Your task to perform on an android device: Open network settings Image 0: 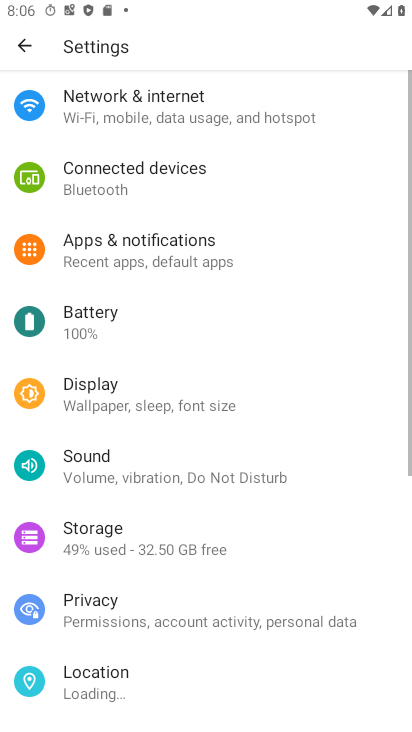
Step 0: drag from (268, 660) to (263, 279)
Your task to perform on an android device: Open network settings Image 1: 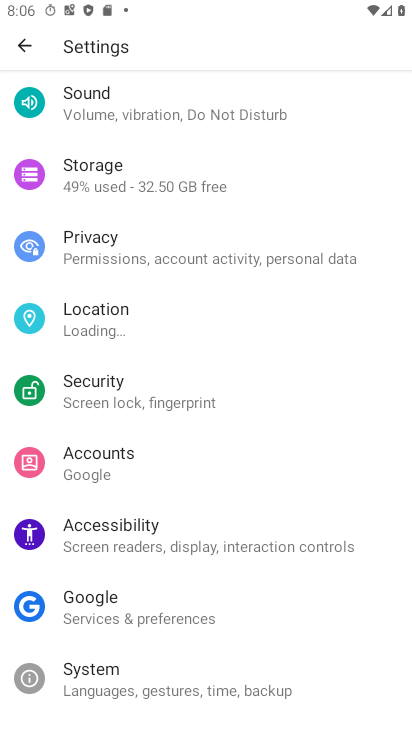
Step 1: press home button
Your task to perform on an android device: Open network settings Image 2: 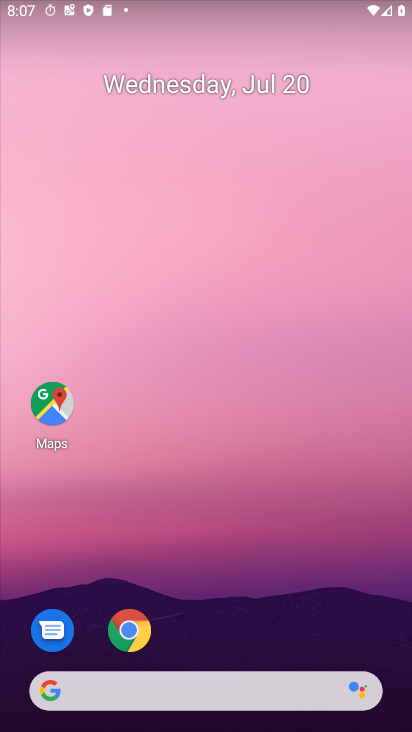
Step 2: drag from (201, 640) to (89, 99)
Your task to perform on an android device: Open network settings Image 3: 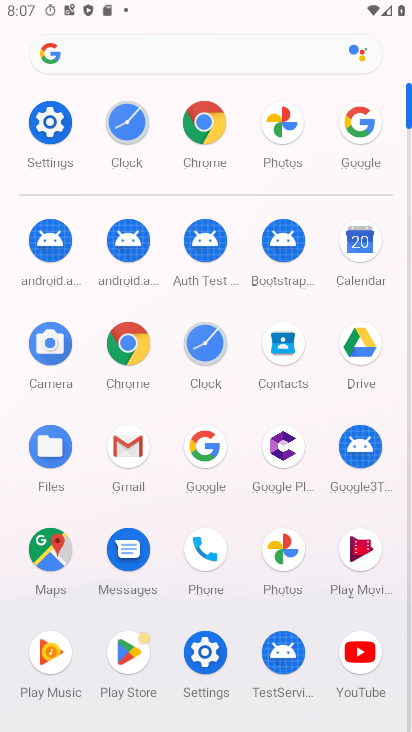
Step 3: click (60, 134)
Your task to perform on an android device: Open network settings Image 4: 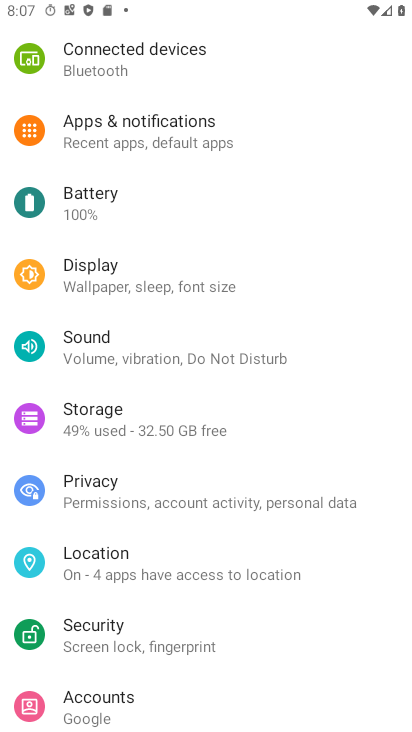
Step 4: drag from (195, 293) to (166, 572)
Your task to perform on an android device: Open network settings Image 5: 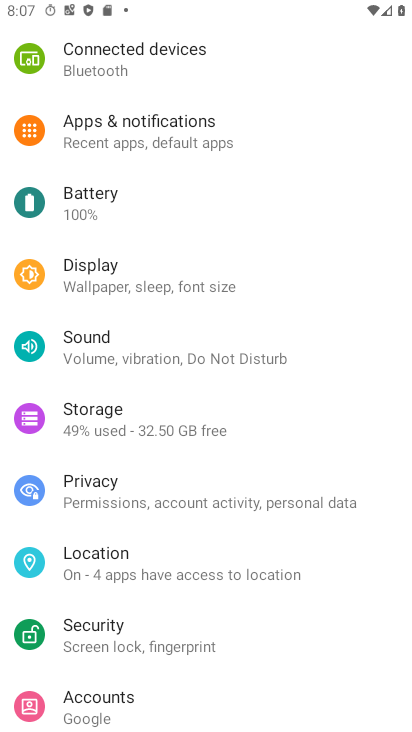
Step 5: drag from (213, 224) to (190, 496)
Your task to perform on an android device: Open network settings Image 6: 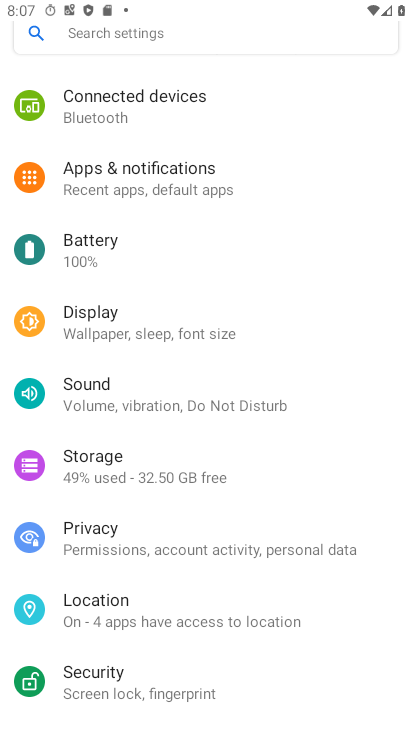
Step 6: drag from (227, 458) to (209, 573)
Your task to perform on an android device: Open network settings Image 7: 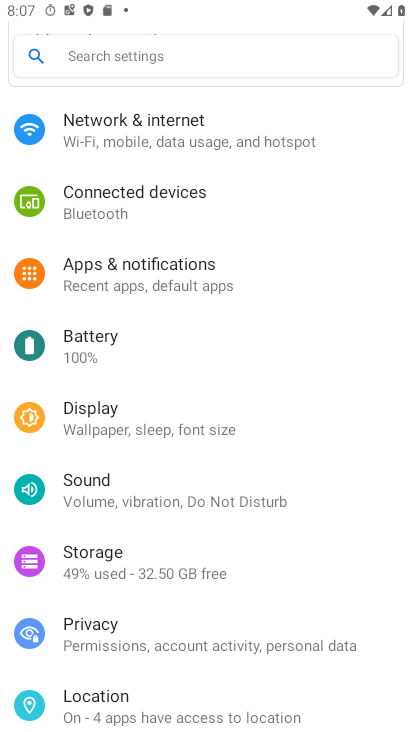
Step 7: drag from (238, 292) to (244, 537)
Your task to perform on an android device: Open network settings Image 8: 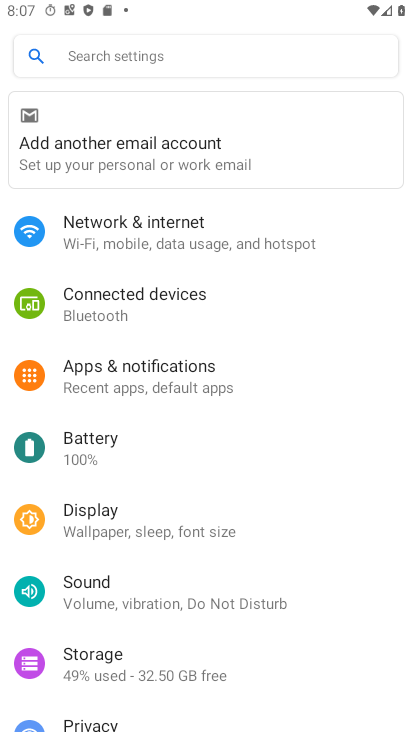
Step 8: click (231, 253)
Your task to perform on an android device: Open network settings Image 9: 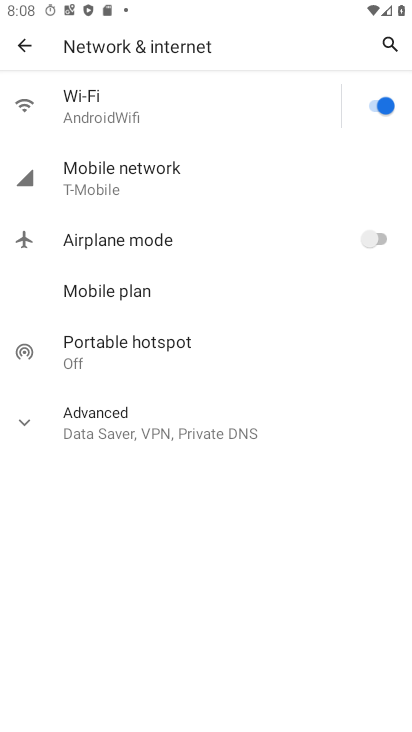
Step 9: click (124, 168)
Your task to perform on an android device: Open network settings Image 10: 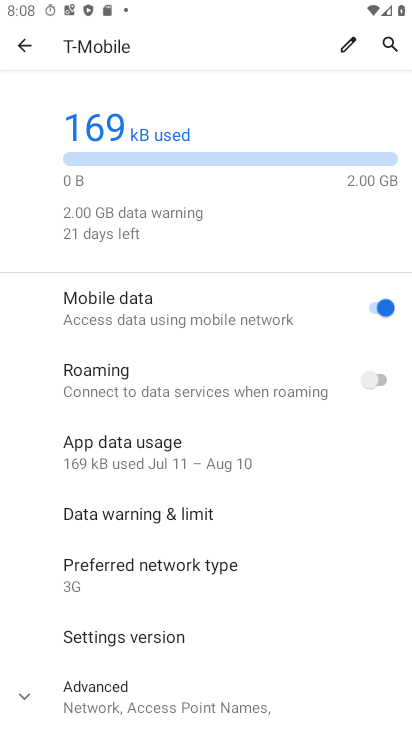
Step 10: task complete